Your task to perform on an android device: toggle javascript in the chrome app Image 0: 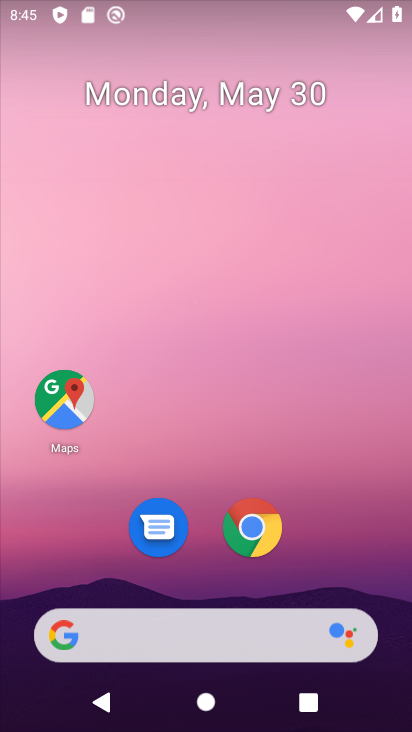
Step 0: drag from (208, 614) to (217, 17)
Your task to perform on an android device: toggle javascript in the chrome app Image 1: 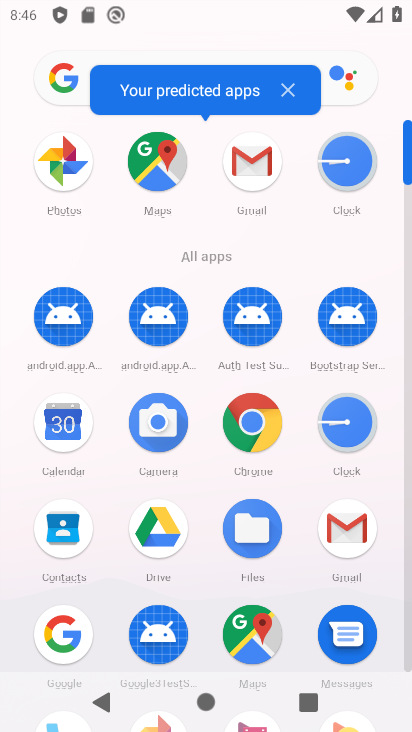
Step 1: click (258, 424)
Your task to perform on an android device: toggle javascript in the chrome app Image 2: 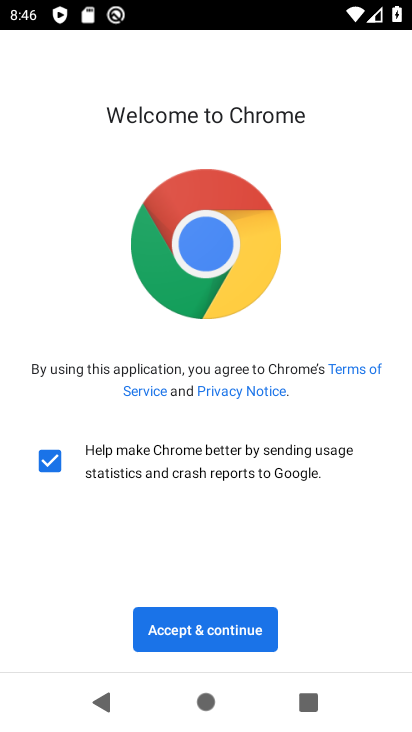
Step 2: click (211, 620)
Your task to perform on an android device: toggle javascript in the chrome app Image 3: 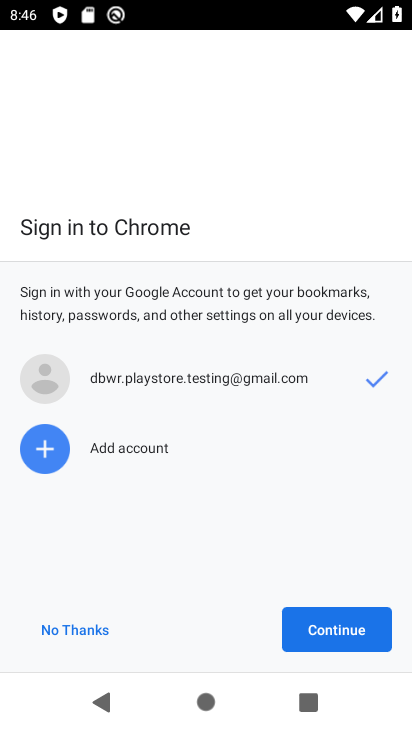
Step 3: click (67, 633)
Your task to perform on an android device: toggle javascript in the chrome app Image 4: 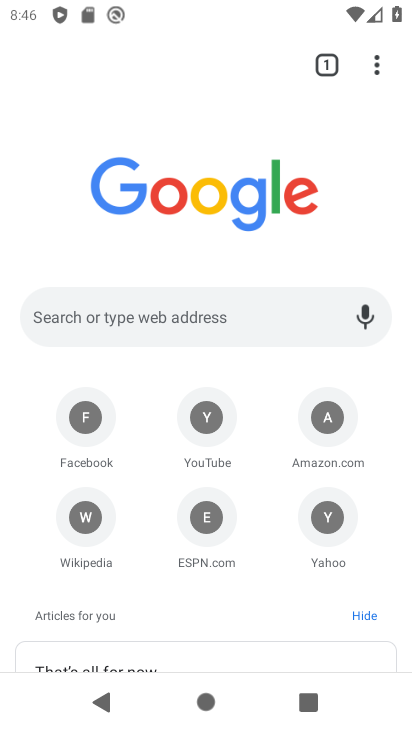
Step 4: drag from (382, 57) to (203, 552)
Your task to perform on an android device: toggle javascript in the chrome app Image 5: 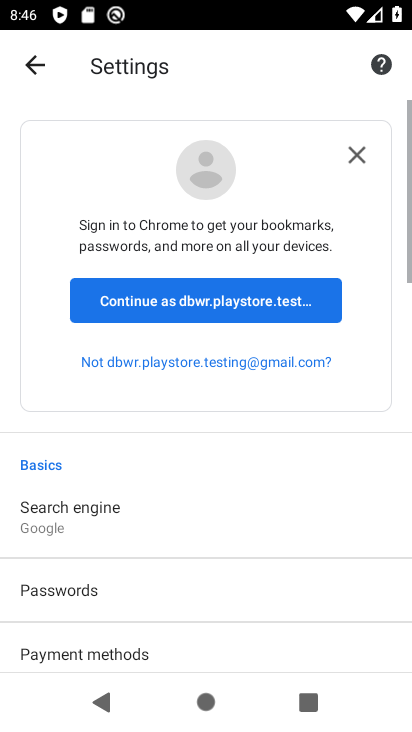
Step 5: drag from (188, 556) to (191, 7)
Your task to perform on an android device: toggle javascript in the chrome app Image 6: 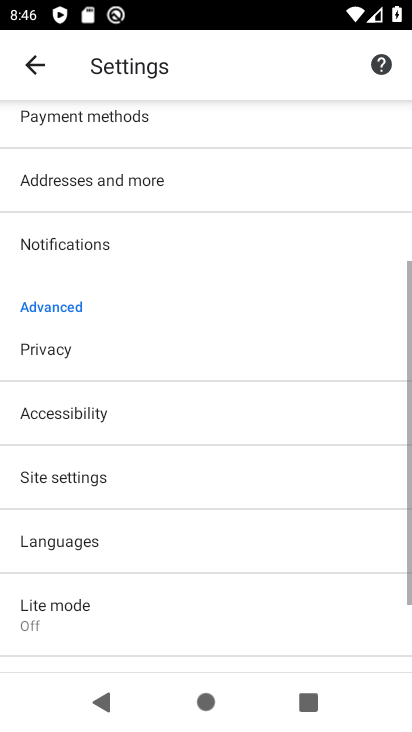
Step 6: click (96, 467)
Your task to perform on an android device: toggle javascript in the chrome app Image 7: 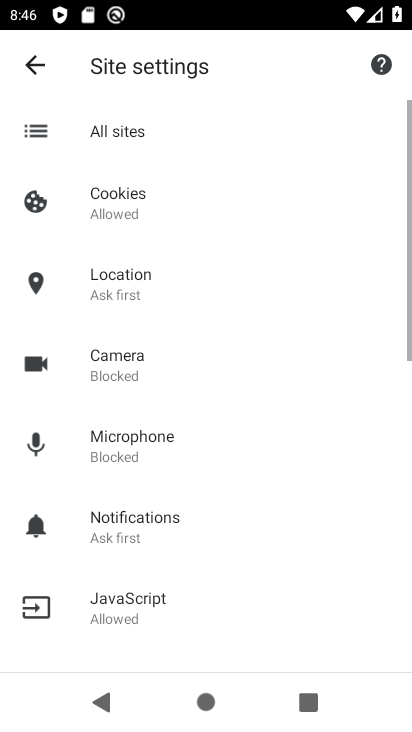
Step 7: drag from (101, 538) to (113, 266)
Your task to perform on an android device: toggle javascript in the chrome app Image 8: 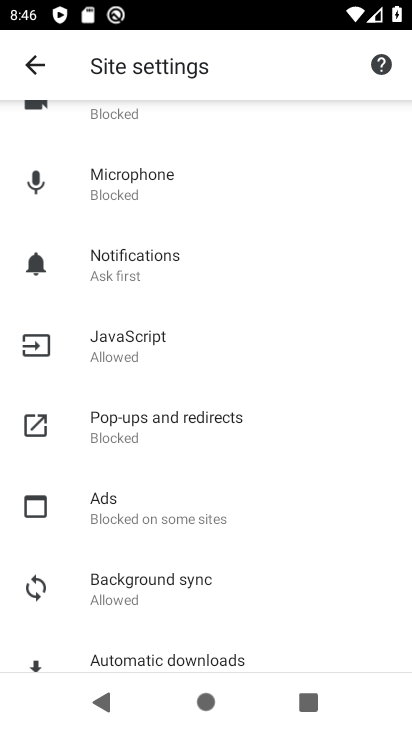
Step 8: click (161, 356)
Your task to perform on an android device: toggle javascript in the chrome app Image 9: 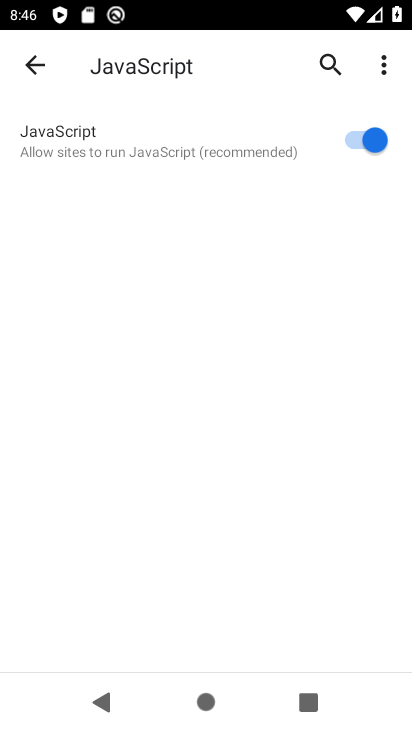
Step 9: click (361, 141)
Your task to perform on an android device: toggle javascript in the chrome app Image 10: 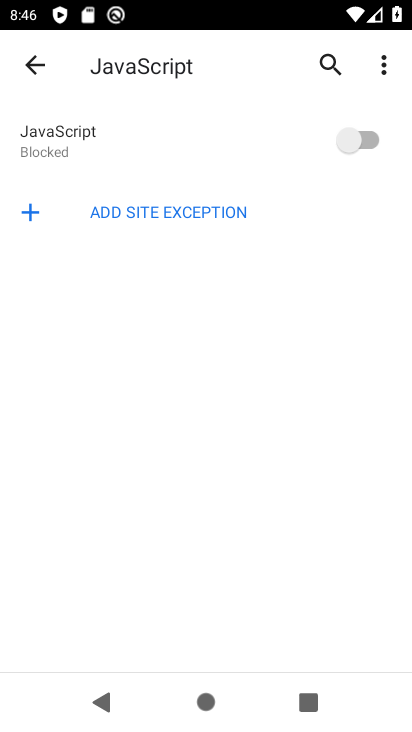
Step 10: task complete